Your task to perform on an android device: turn on the 12-hour format for clock Image 0: 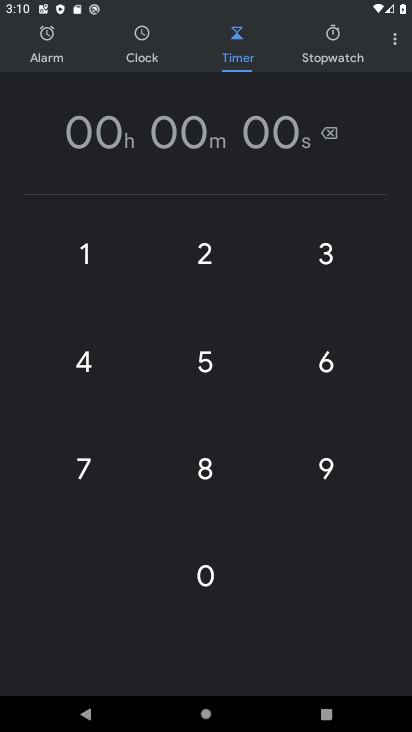
Step 0: press home button
Your task to perform on an android device: turn on the 12-hour format for clock Image 1: 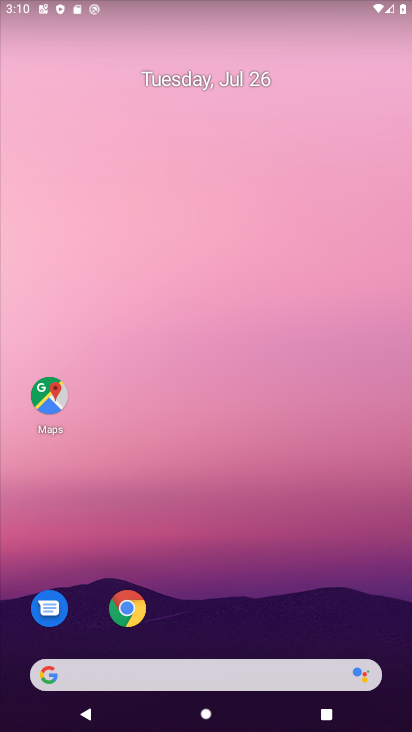
Step 1: drag from (244, 635) to (236, 129)
Your task to perform on an android device: turn on the 12-hour format for clock Image 2: 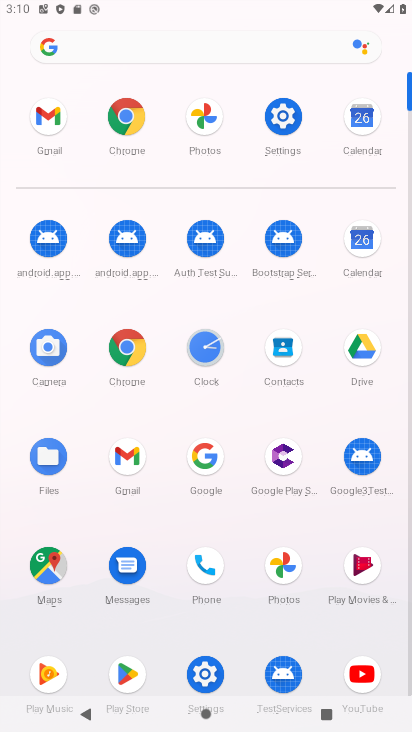
Step 2: click (215, 375)
Your task to perform on an android device: turn on the 12-hour format for clock Image 3: 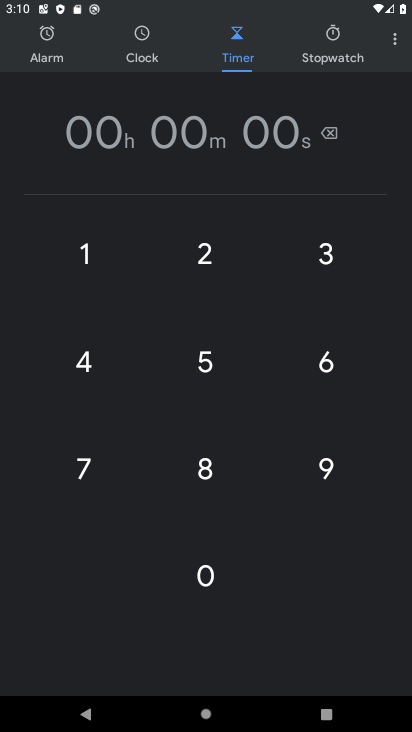
Step 3: click (399, 47)
Your task to perform on an android device: turn on the 12-hour format for clock Image 4: 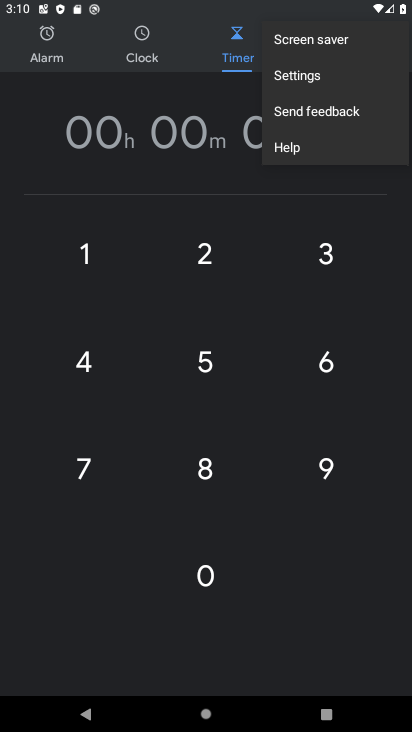
Step 4: click (302, 85)
Your task to perform on an android device: turn on the 12-hour format for clock Image 5: 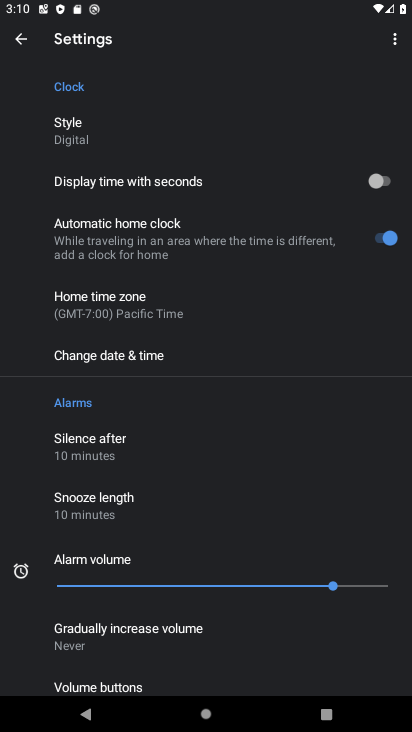
Step 5: task complete